Your task to perform on an android device: Open Google Chrome Image 0: 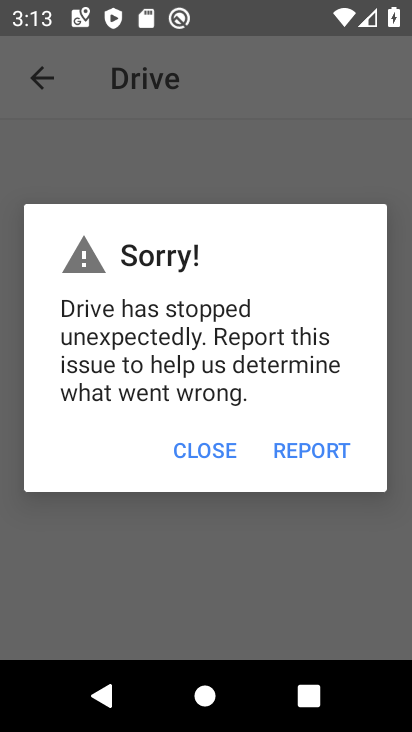
Step 0: click (220, 442)
Your task to perform on an android device: Open Google Chrome Image 1: 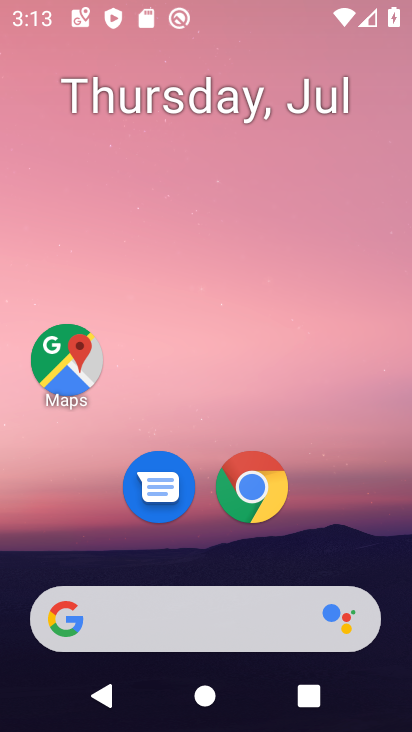
Step 1: press back button
Your task to perform on an android device: Open Google Chrome Image 2: 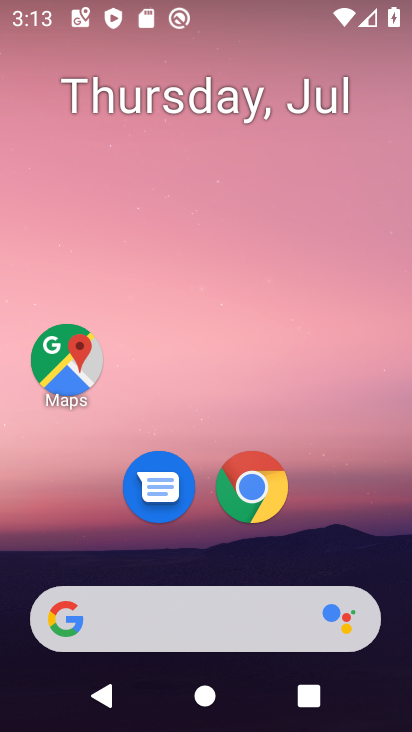
Step 2: click (256, 489)
Your task to perform on an android device: Open Google Chrome Image 3: 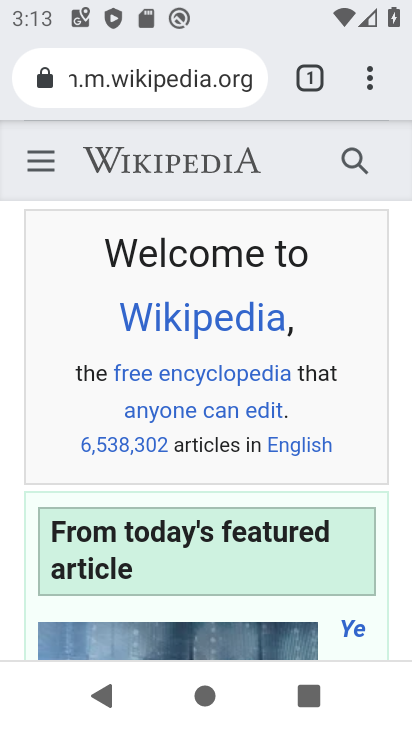
Step 3: task complete